Your task to perform on an android device: Open display settings Image 0: 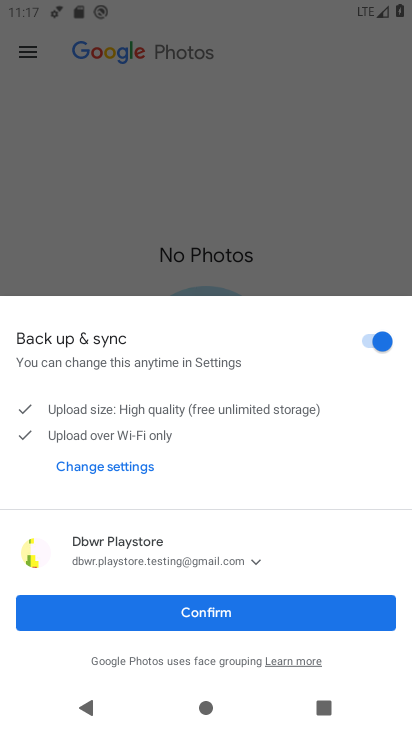
Step 0: press home button
Your task to perform on an android device: Open display settings Image 1: 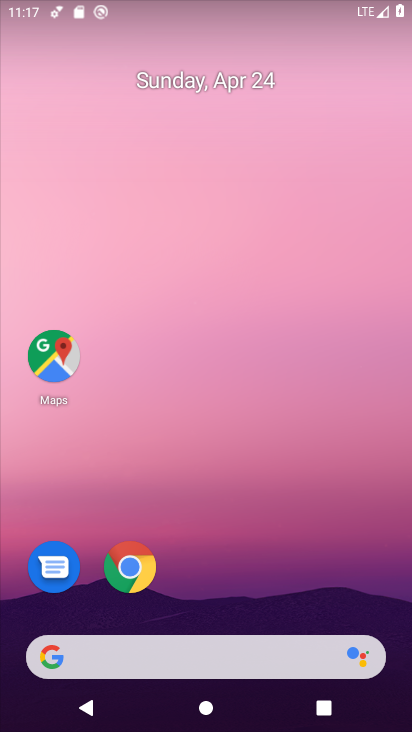
Step 1: drag from (222, 600) to (280, 239)
Your task to perform on an android device: Open display settings Image 2: 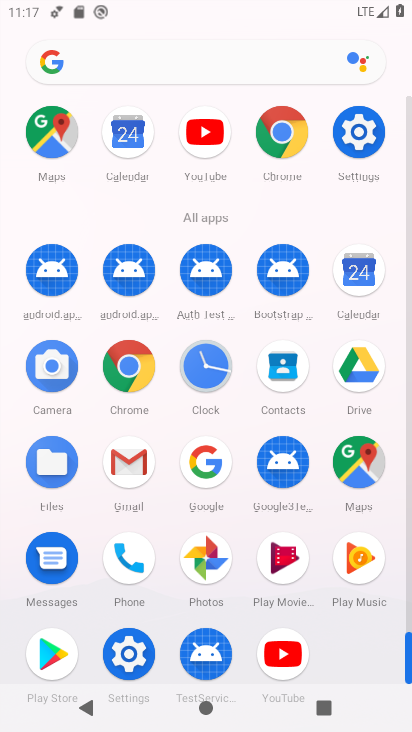
Step 2: click (366, 145)
Your task to perform on an android device: Open display settings Image 3: 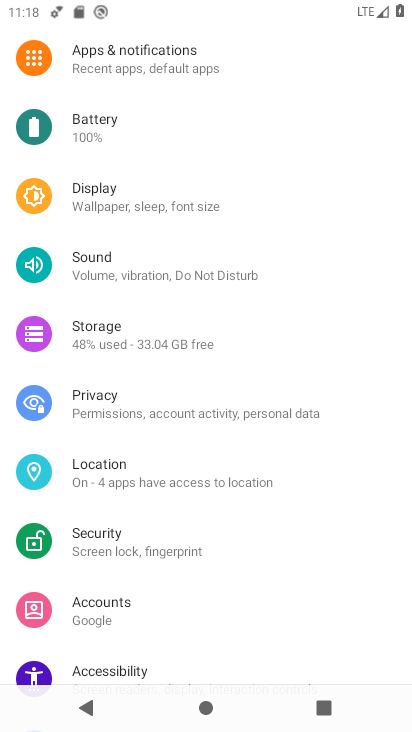
Step 3: click (179, 209)
Your task to perform on an android device: Open display settings Image 4: 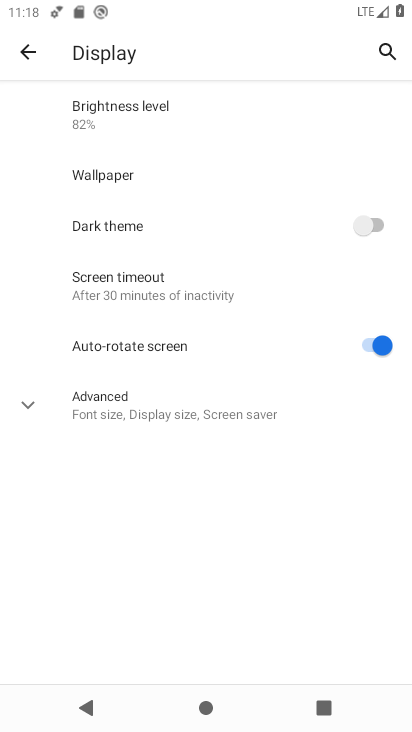
Step 4: task complete